Your task to perform on an android device: Open notification settings Image 0: 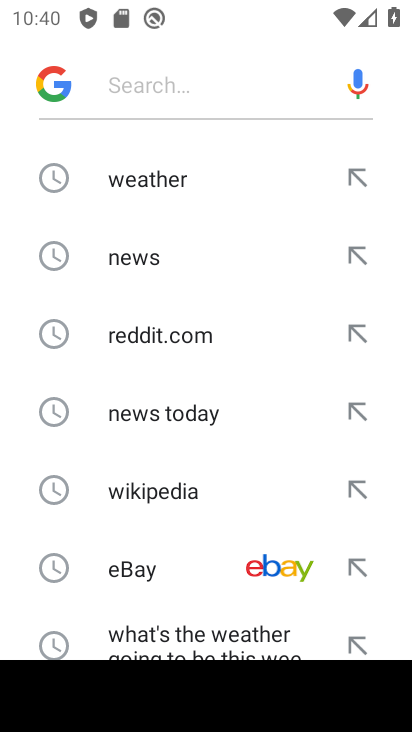
Step 0: press home button
Your task to perform on an android device: Open notification settings Image 1: 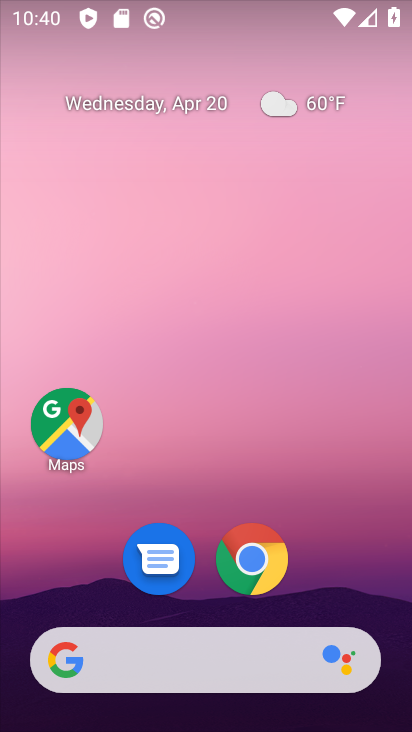
Step 1: drag from (215, 523) to (220, 14)
Your task to perform on an android device: Open notification settings Image 2: 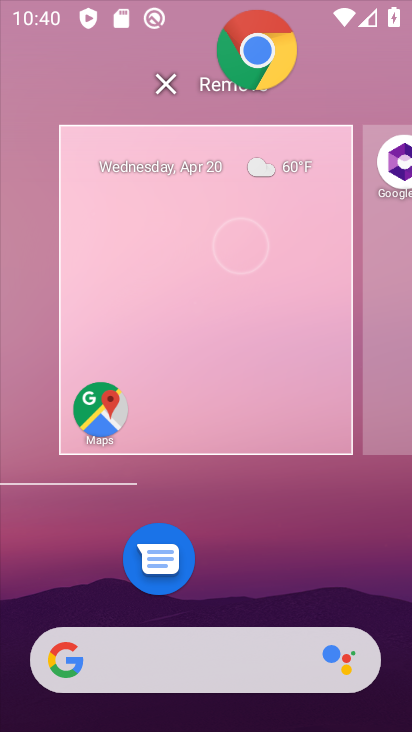
Step 2: click (219, 559)
Your task to perform on an android device: Open notification settings Image 3: 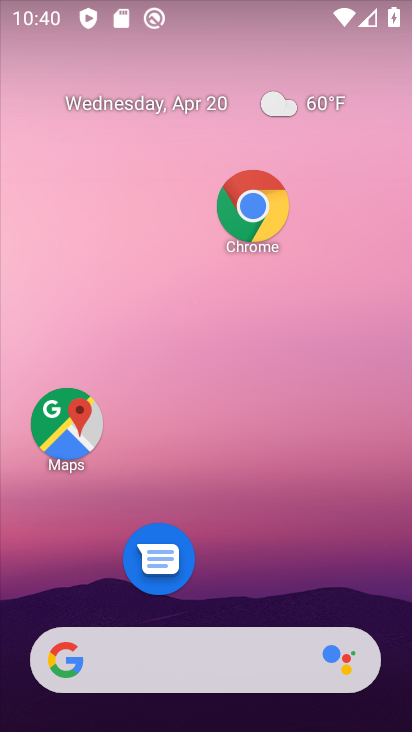
Step 3: drag from (320, 538) to (291, 11)
Your task to perform on an android device: Open notification settings Image 4: 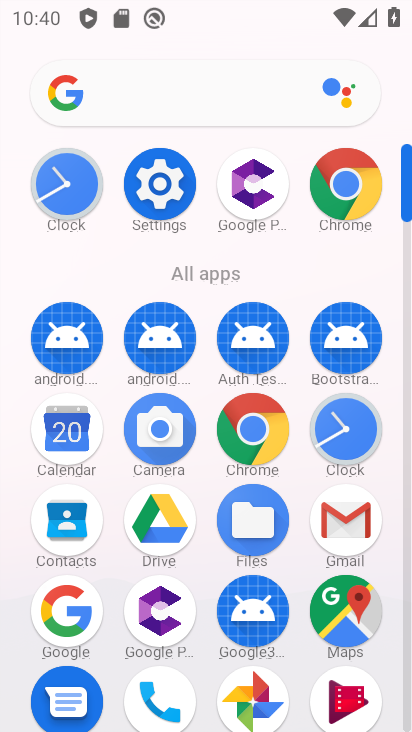
Step 4: drag from (190, 584) to (224, 182)
Your task to perform on an android device: Open notification settings Image 5: 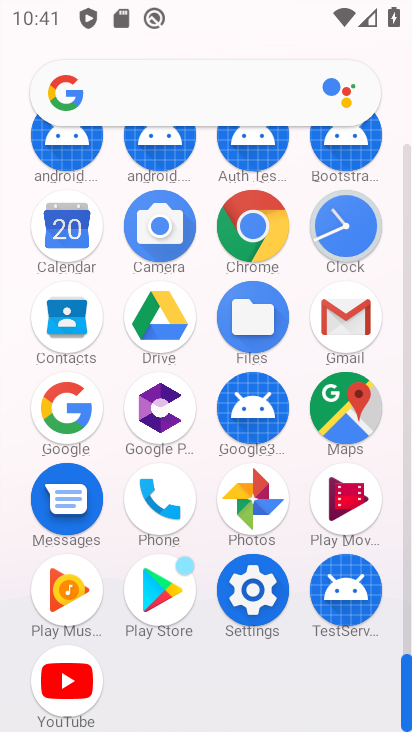
Step 5: click (254, 590)
Your task to perform on an android device: Open notification settings Image 6: 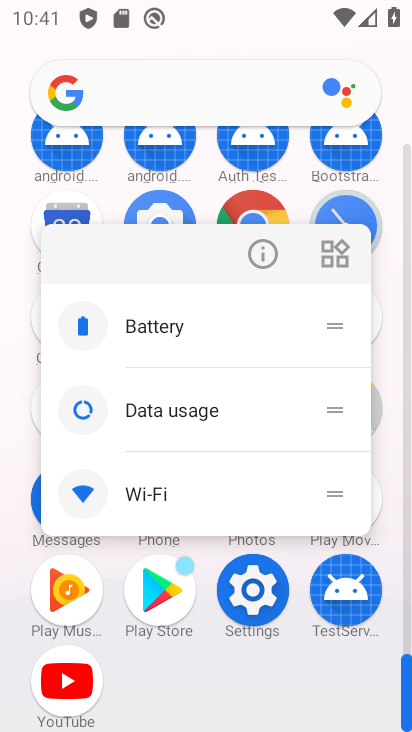
Step 6: click (254, 590)
Your task to perform on an android device: Open notification settings Image 7: 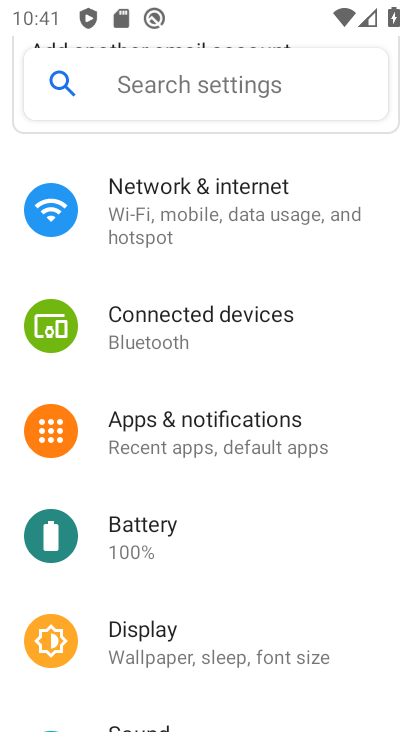
Step 7: click (246, 437)
Your task to perform on an android device: Open notification settings Image 8: 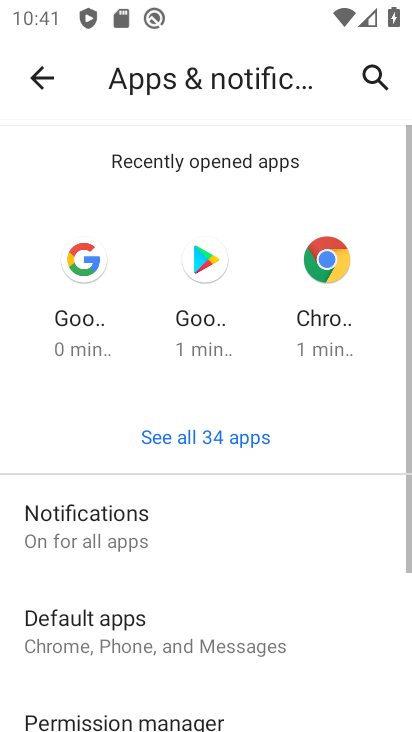
Step 8: task complete